Your task to perform on an android device: Go to network settings Image 0: 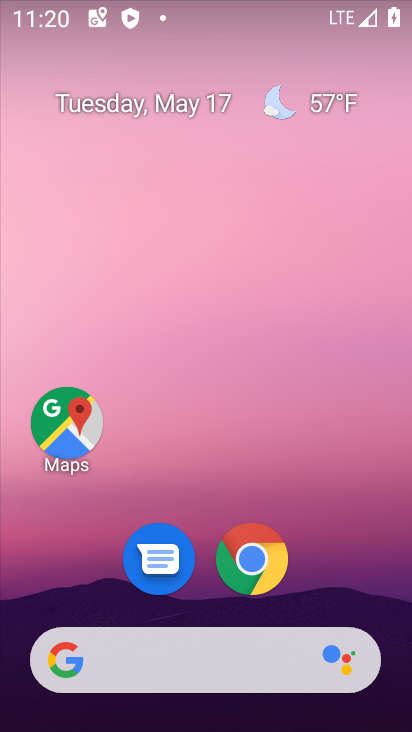
Step 0: drag from (334, 552) to (263, 218)
Your task to perform on an android device: Go to network settings Image 1: 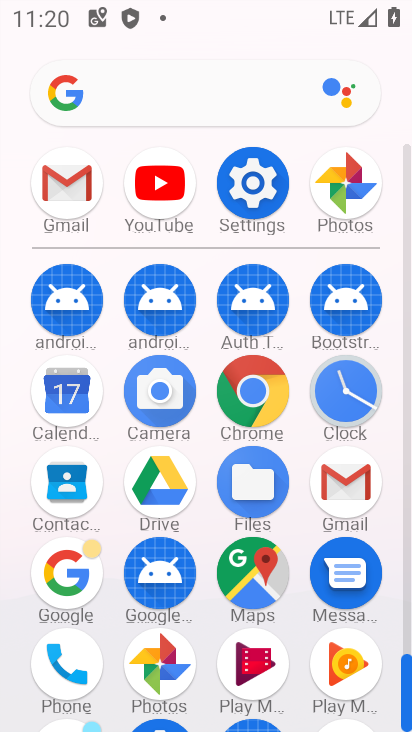
Step 1: click (263, 204)
Your task to perform on an android device: Go to network settings Image 2: 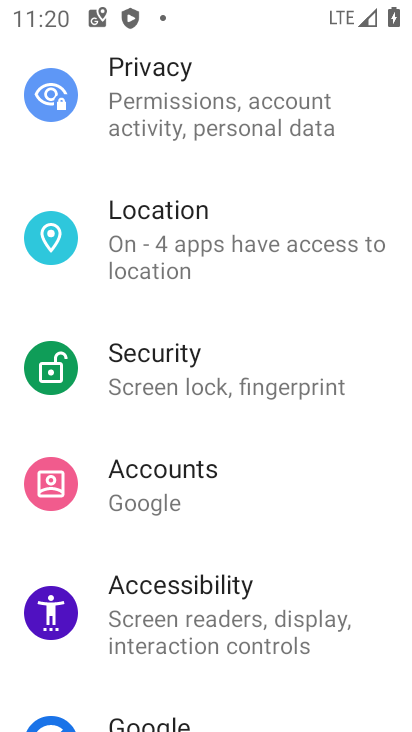
Step 2: drag from (239, 145) to (273, 721)
Your task to perform on an android device: Go to network settings Image 3: 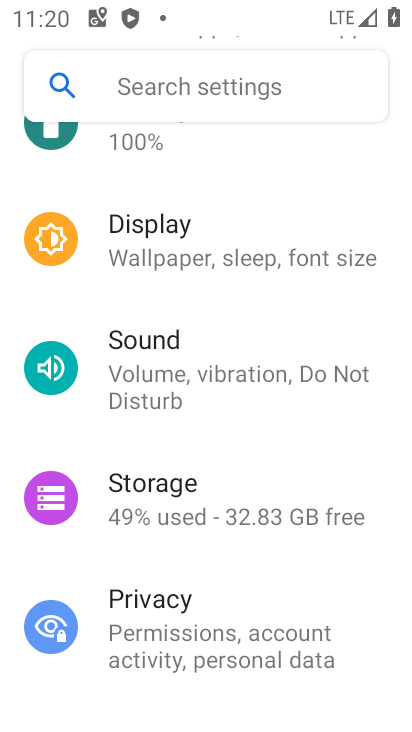
Step 3: drag from (229, 221) to (297, 722)
Your task to perform on an android device: Go to network settings Image 4: 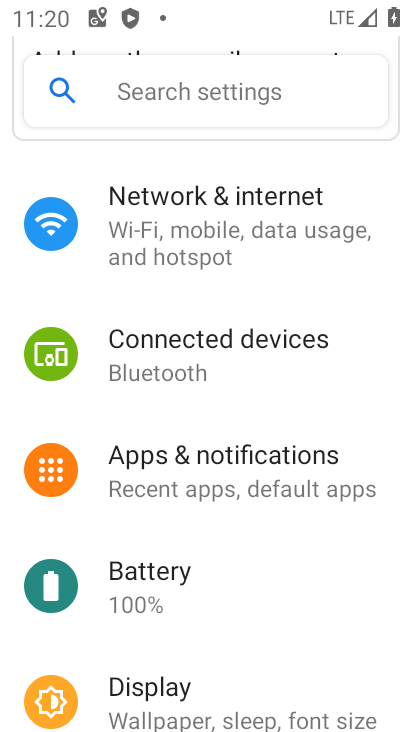
Step 4: click (229, 229)
Your task to perform on an android device: Go to network settings Image 5: 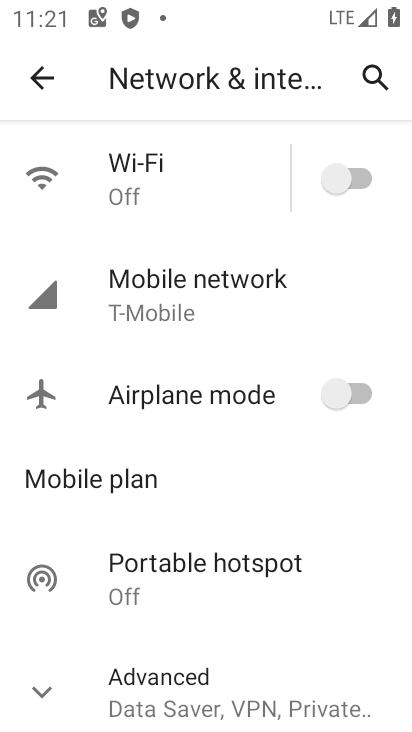
Step 5: task complete